Your task to perform on an android device: Play the last video I watched on Youtube Image 0: 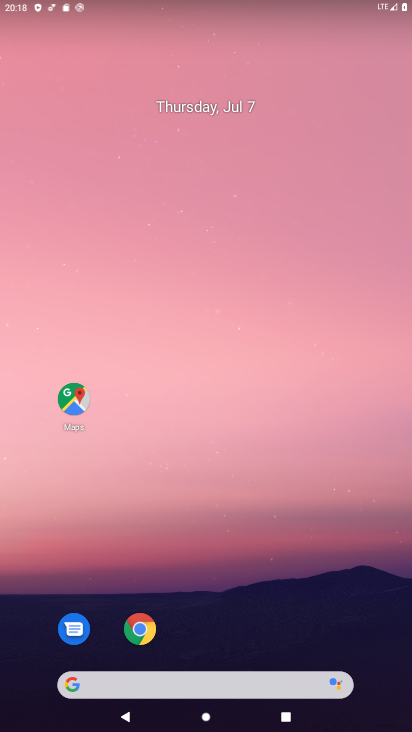
Step 0: drag from (321, 668) to (264, 5)
Your task to perform on an android device: Play the last video I watched on Youtube Image 1: 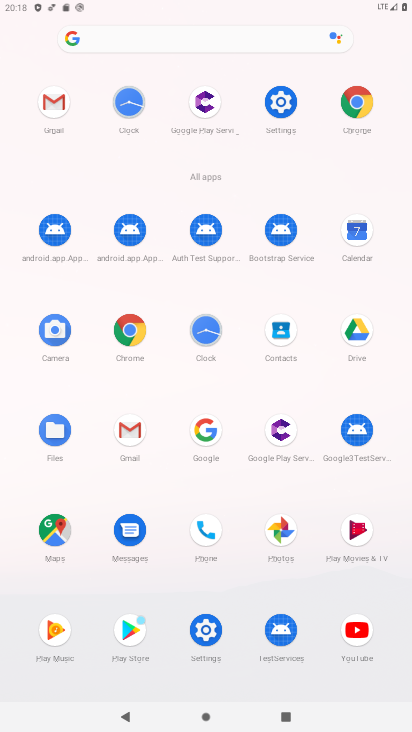
Step 1: click (365, 631)
Your task to perform on an android device: Play the last video I watched on Youtube Image 2: 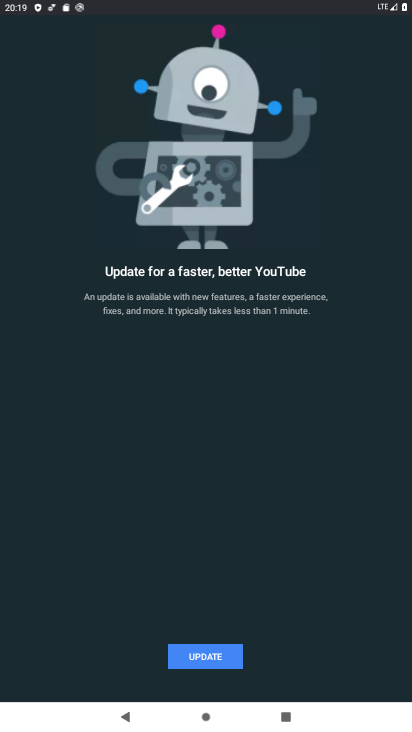
Step 2: click (183, 664)
Your task to perform on an android device: Play the last video I watched on Youtube Image 3: 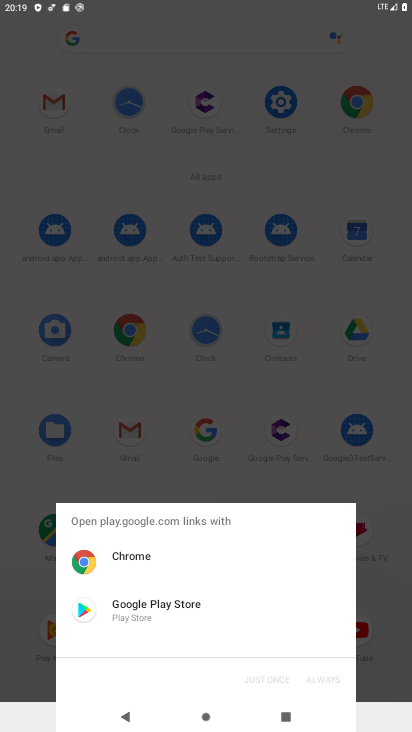
Step 3: click (154, 606)
Your task to perform on an android device: Play the last video I watched on Youtube Image 4: 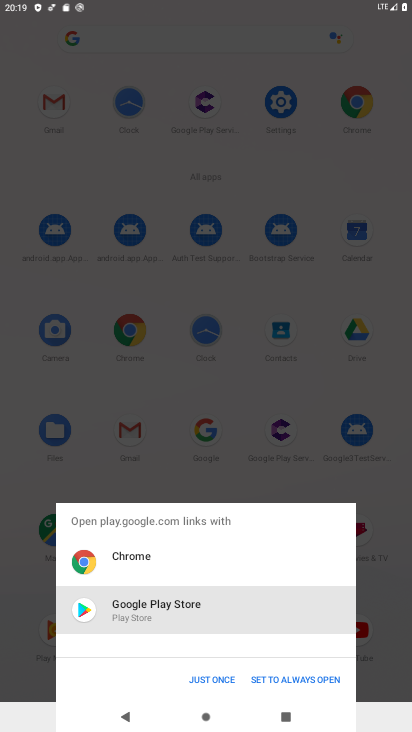
Step 4: click (208, 680)
Your task to perform on an android device: Play the last video I watched on Youtube Image 5: 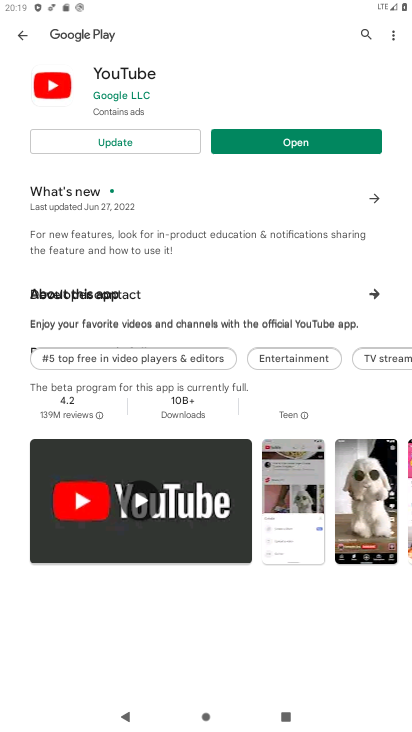
Step 5: click (174, 136)
Your task to perform on an android device: Play the last video I watched on Youtube Image 6: 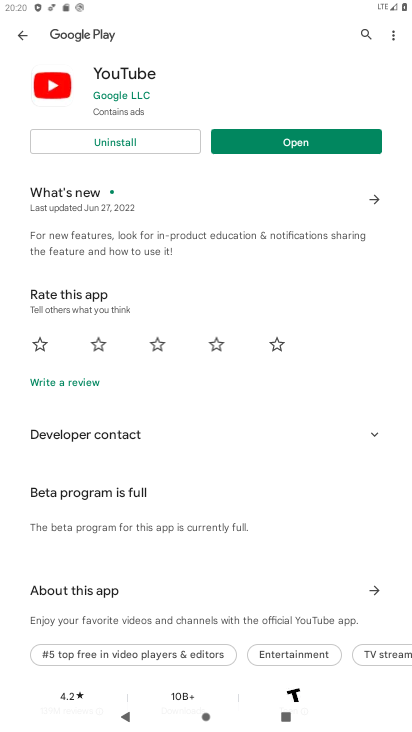
Step 6: click (315, 153)
Your task to perform on an android device: Play the last video I watched on Youtube Image 7: 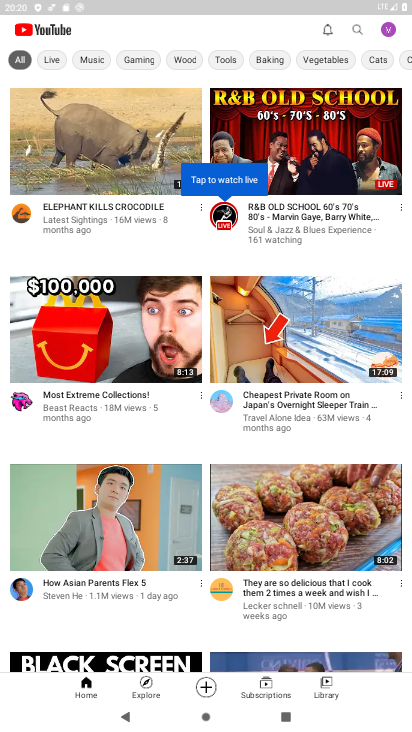
Step 7: task complete